Your task to perform on an android device: What's the latest tech news? Image 0: 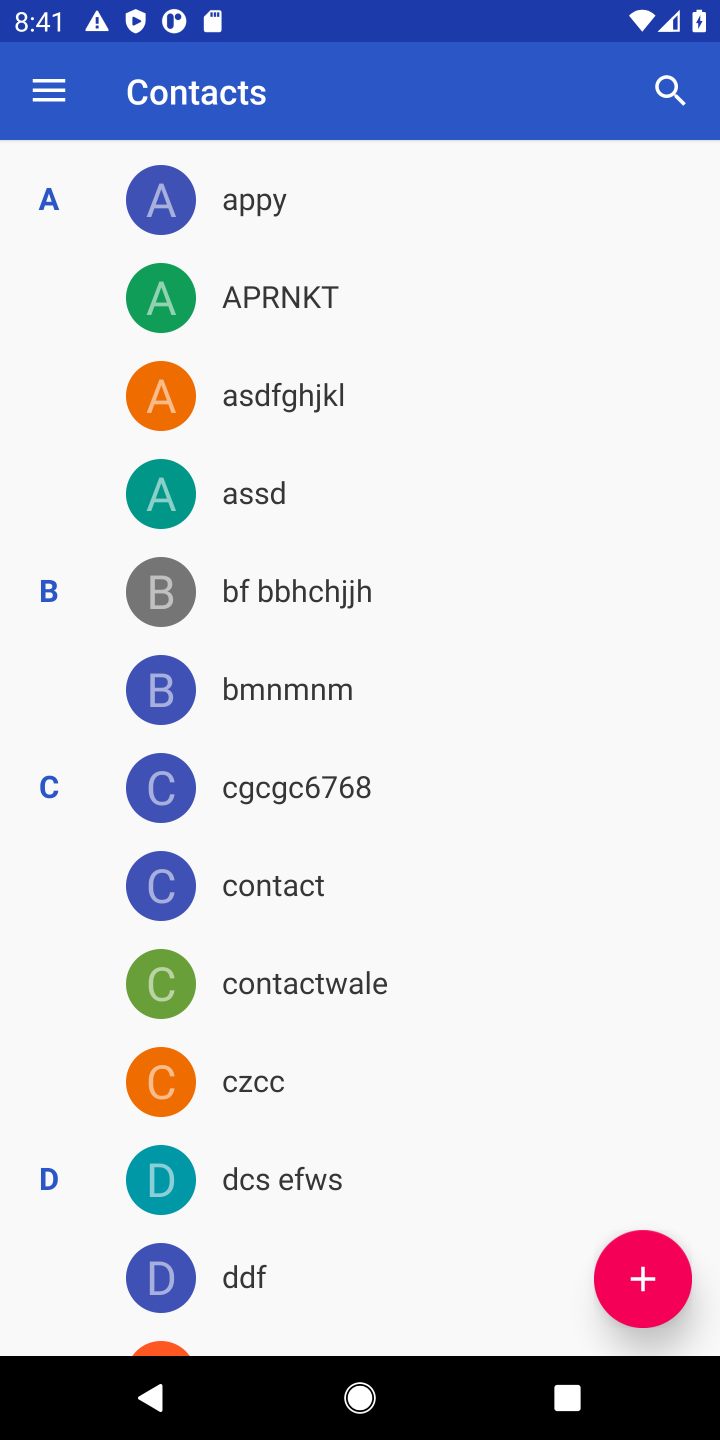
Step 0: press home button
Your task to perform on an android device: What's the latest tech news? Image 1: 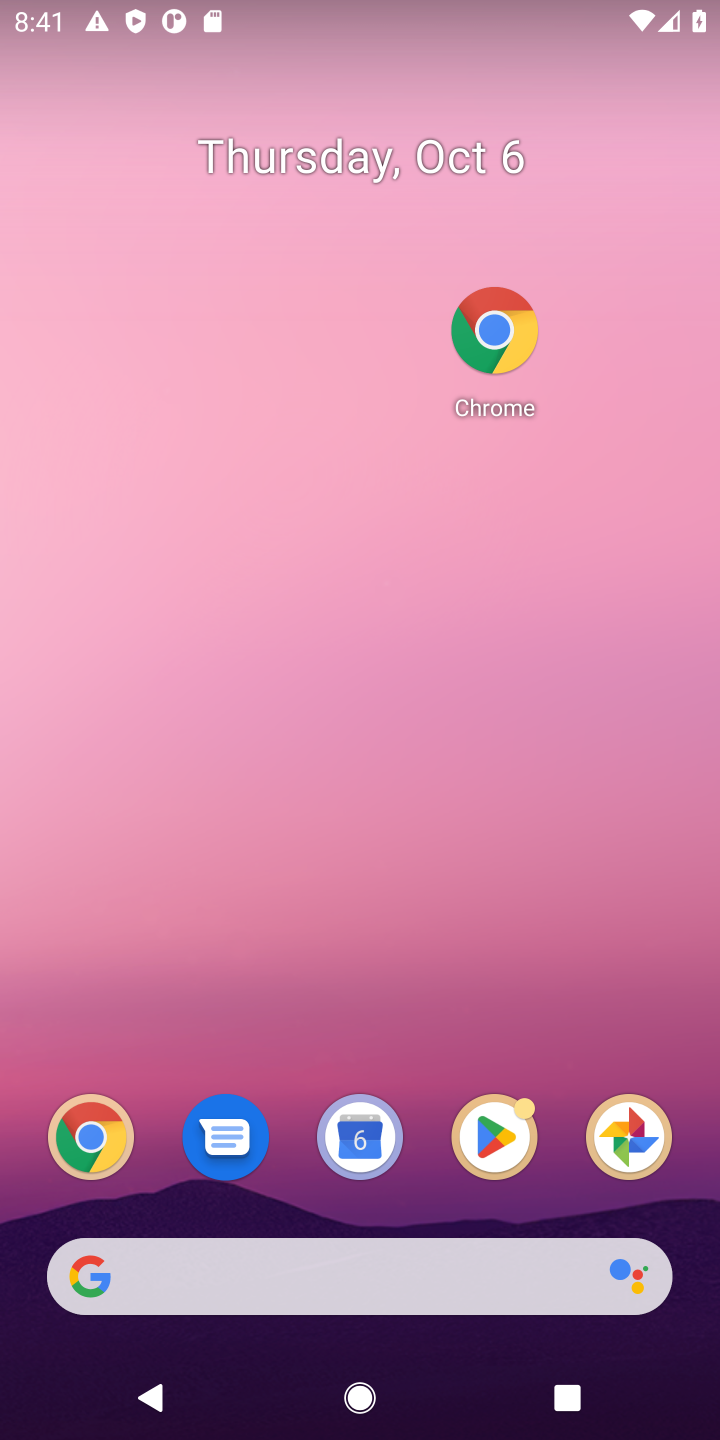
Step 1: click (348, 1285)
Your task to perform on an android device: What's the latest tech news? Image 2: 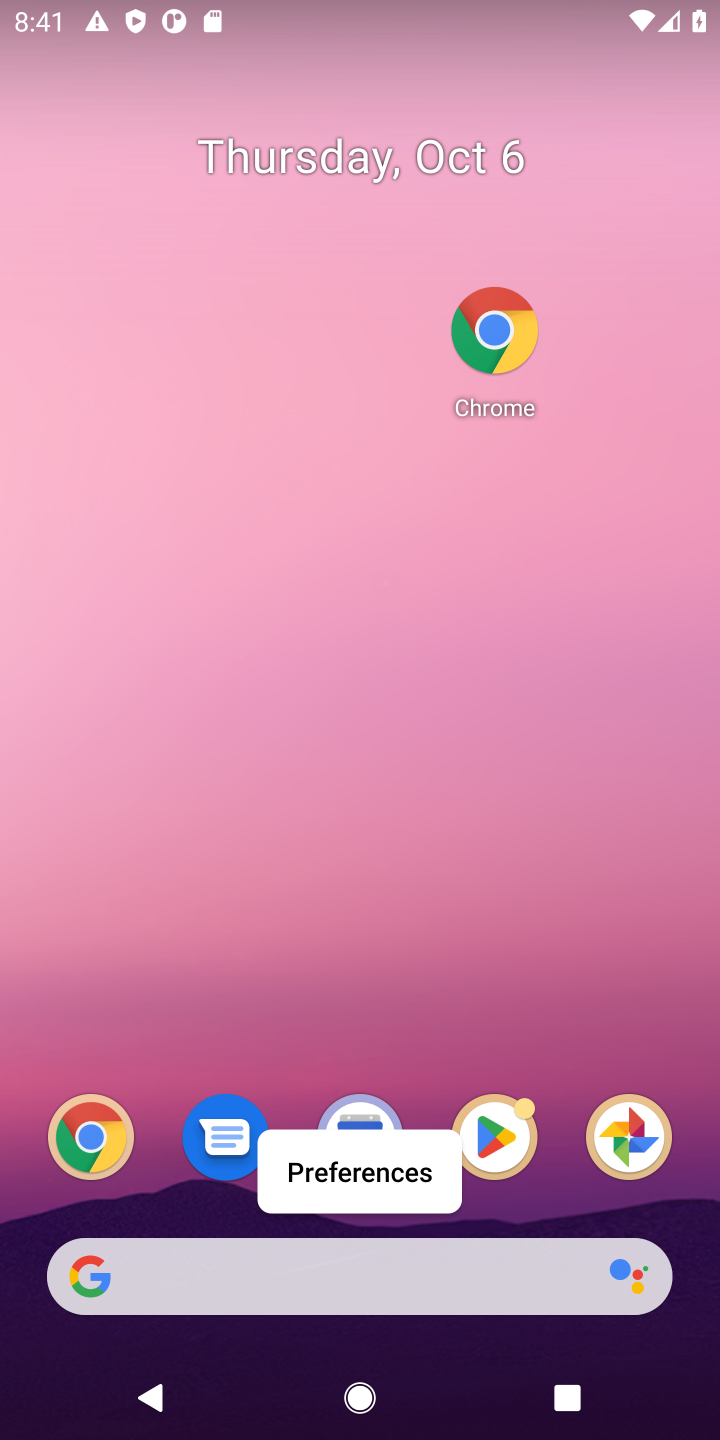
Step 2: click (211, 1282)
Your task to perform on an android device: What's the latest tech news? Image 3: 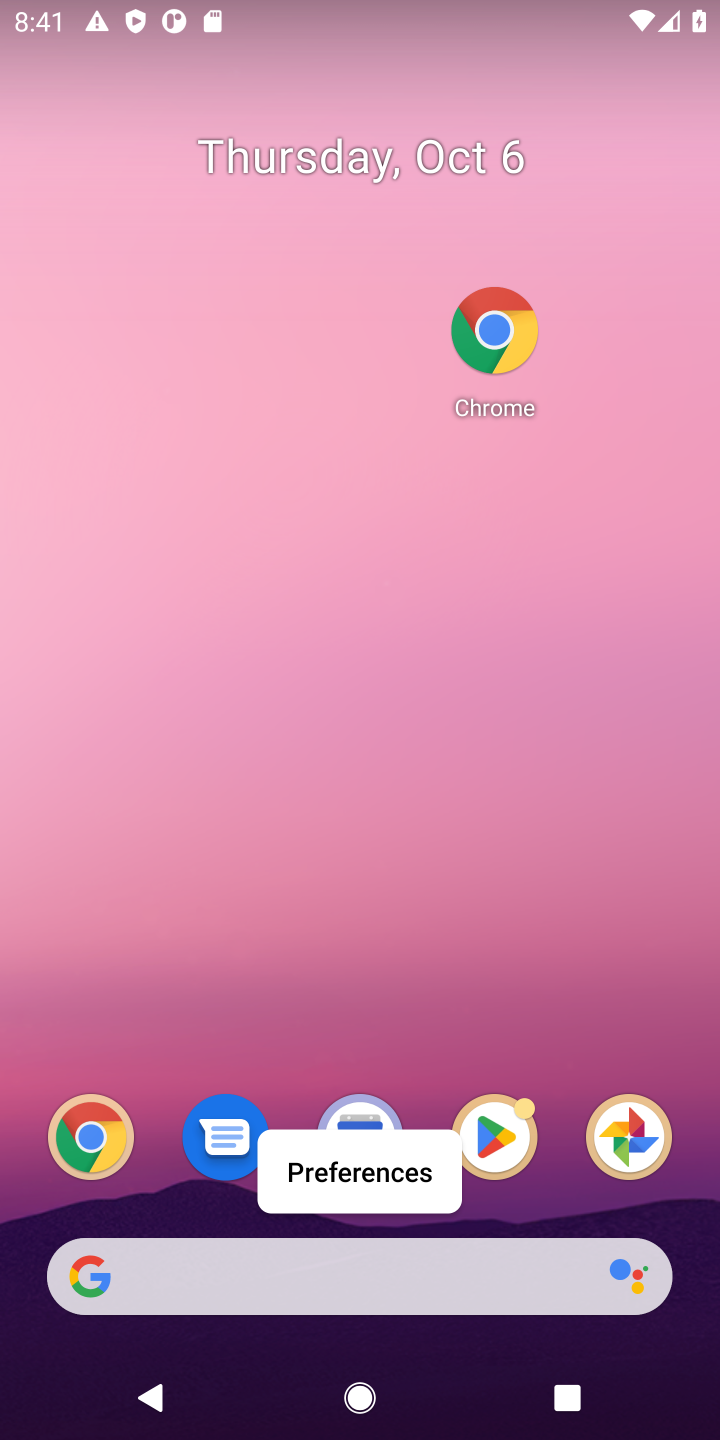
Step 3: click (189, 1282)
Your task to perform on an android device: What's the latest tech news? Image 4: 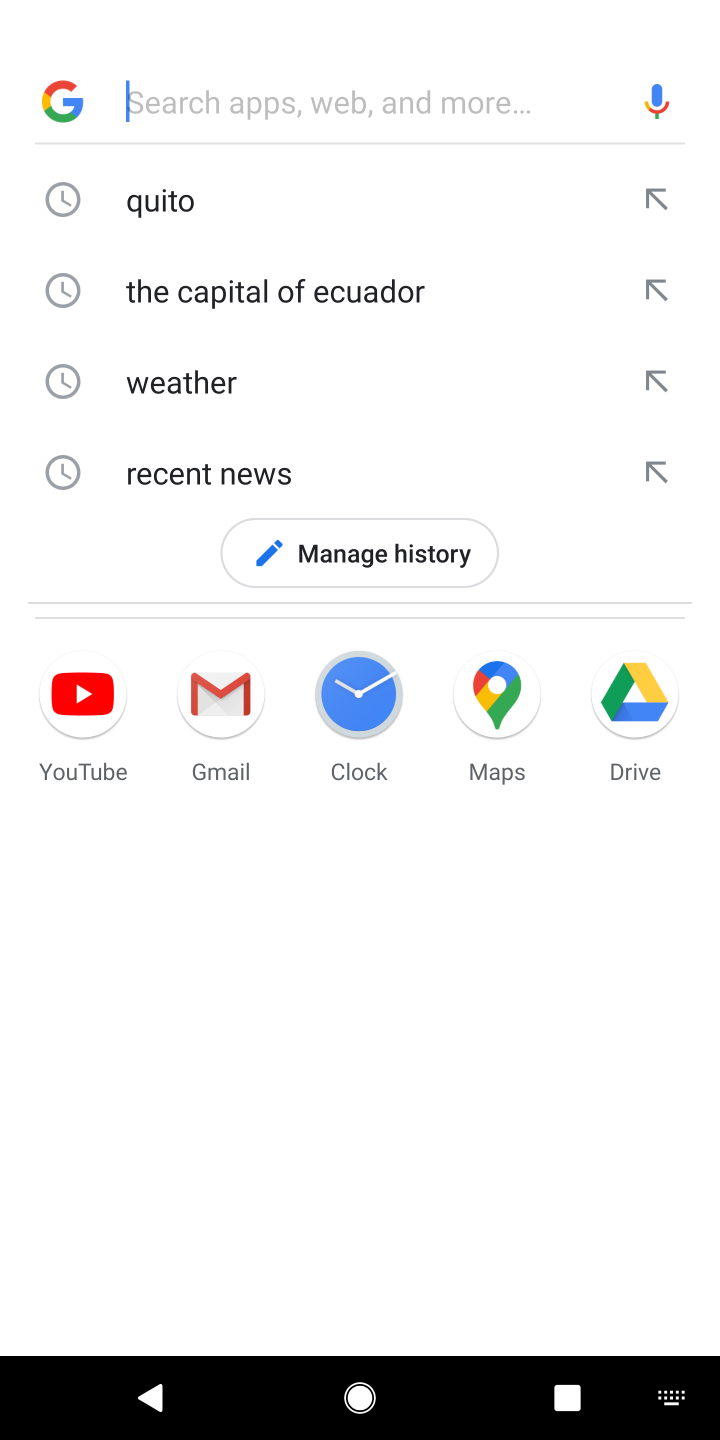
Step 4: type "latest tech news"
Your task to perform on an android device: What's the latest tech news? Image 5: 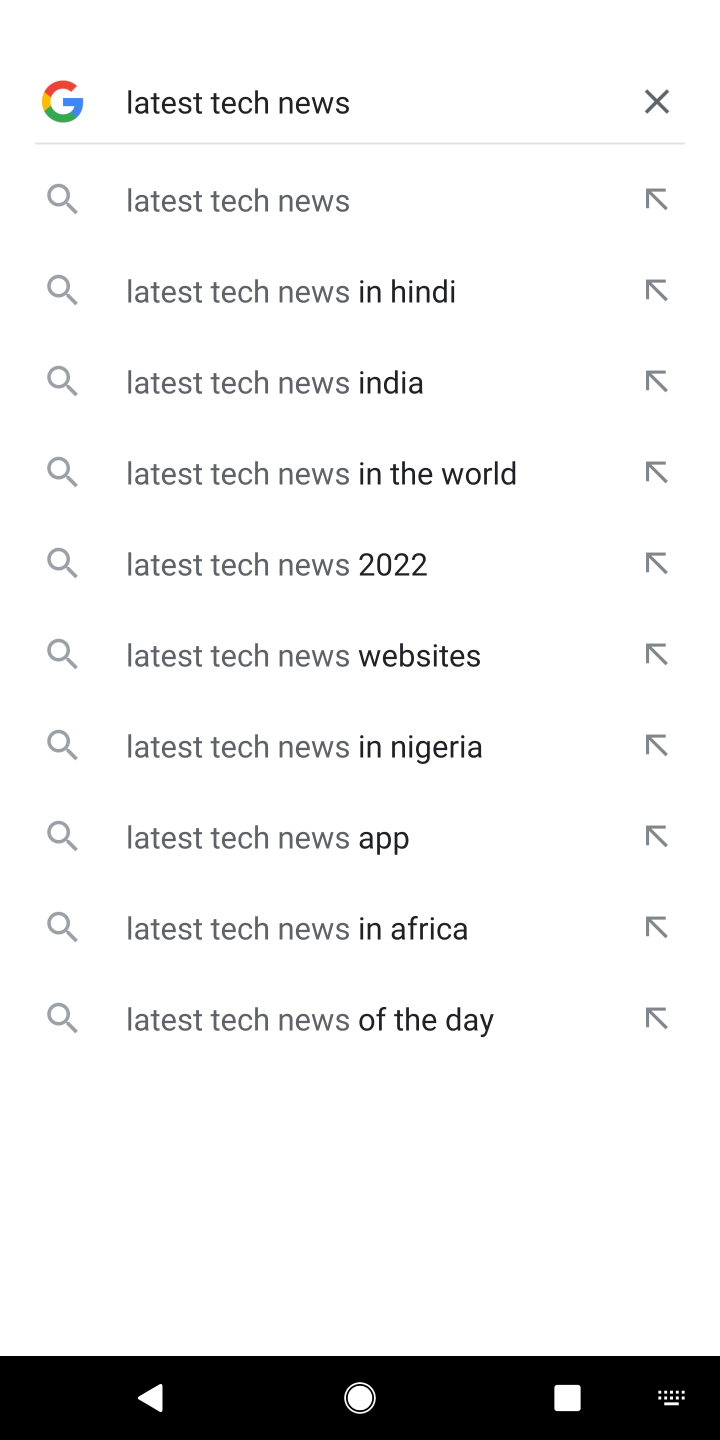
Step 5: click (210, 216)
Your task to perform on an android device: What's the latest tech news? Image 6: 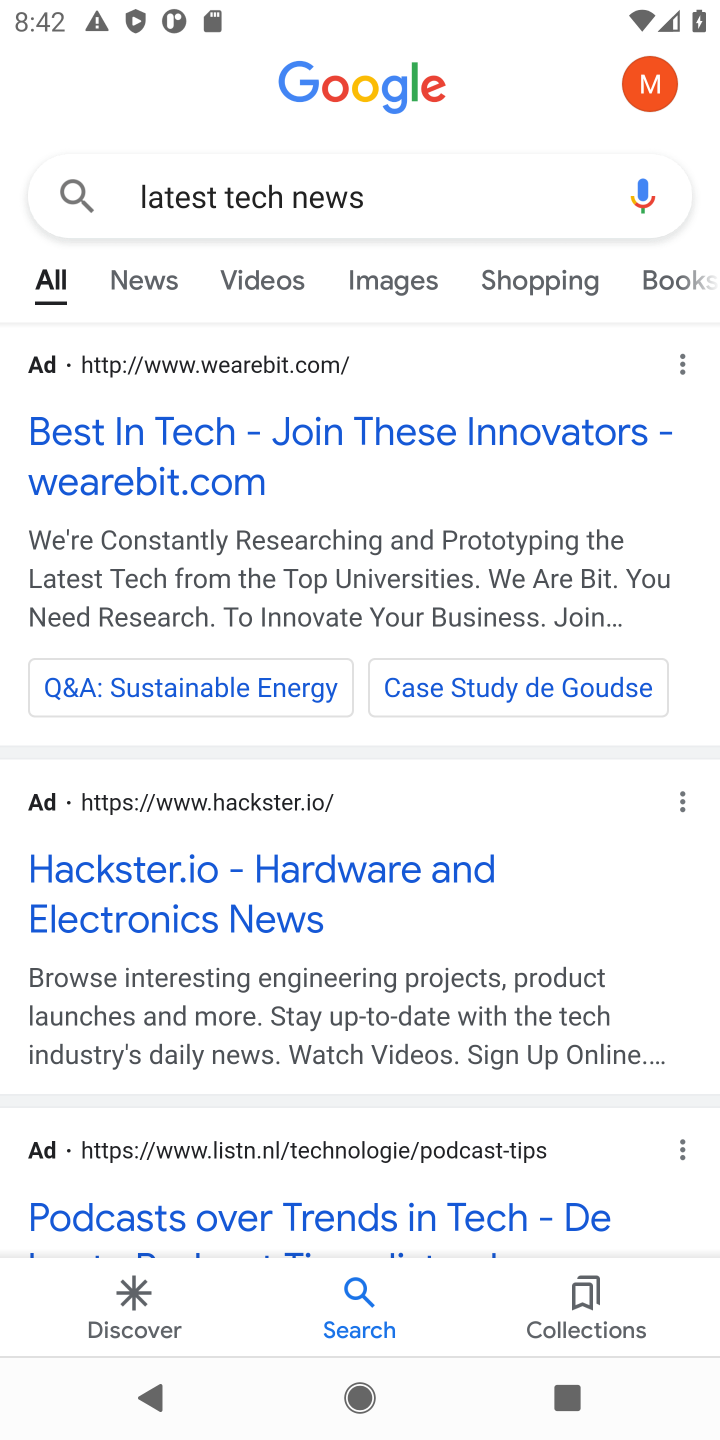
Step 6: drag from (412, 820) to (446, 521)
Your task to perform on an android device: What's the latest tech news? Image 7: 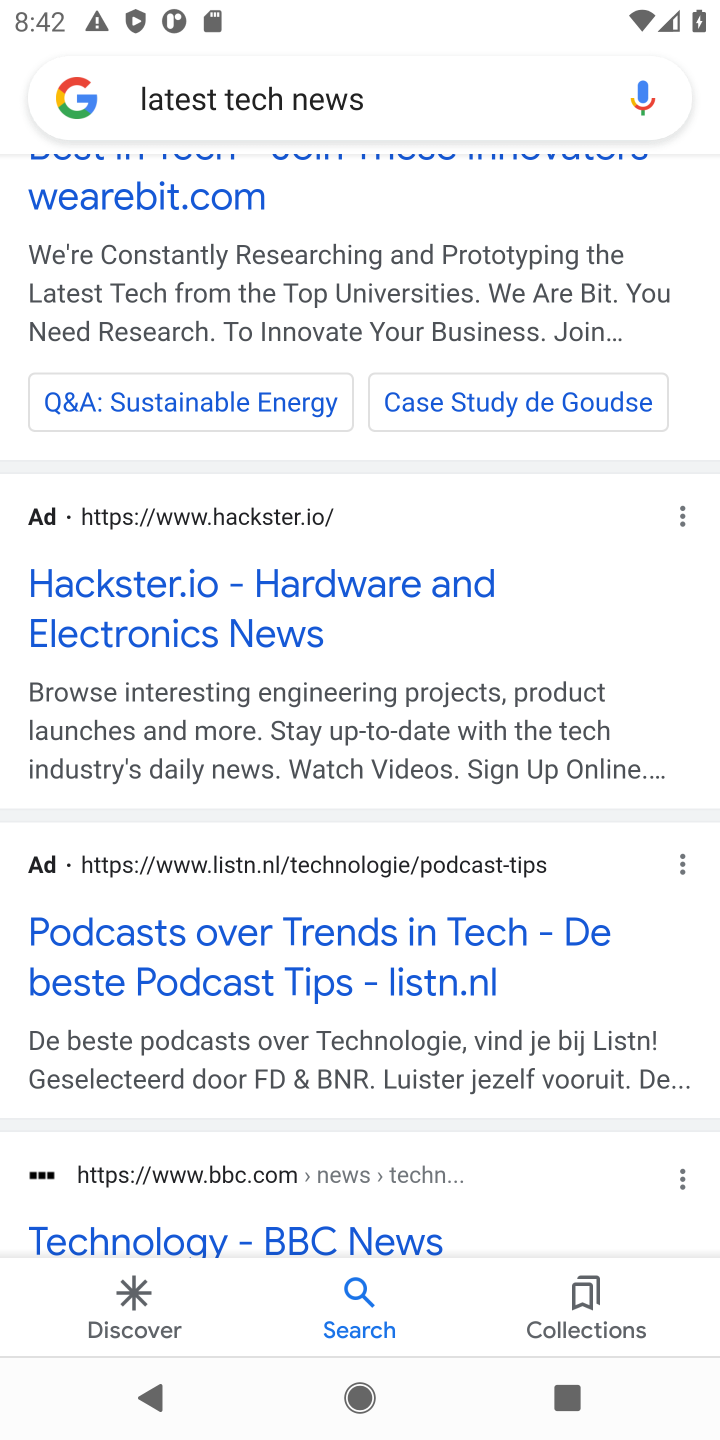
Step 7: click (183, 938)
Your task to perform on an android device: What's the latest tech news? Image 8: 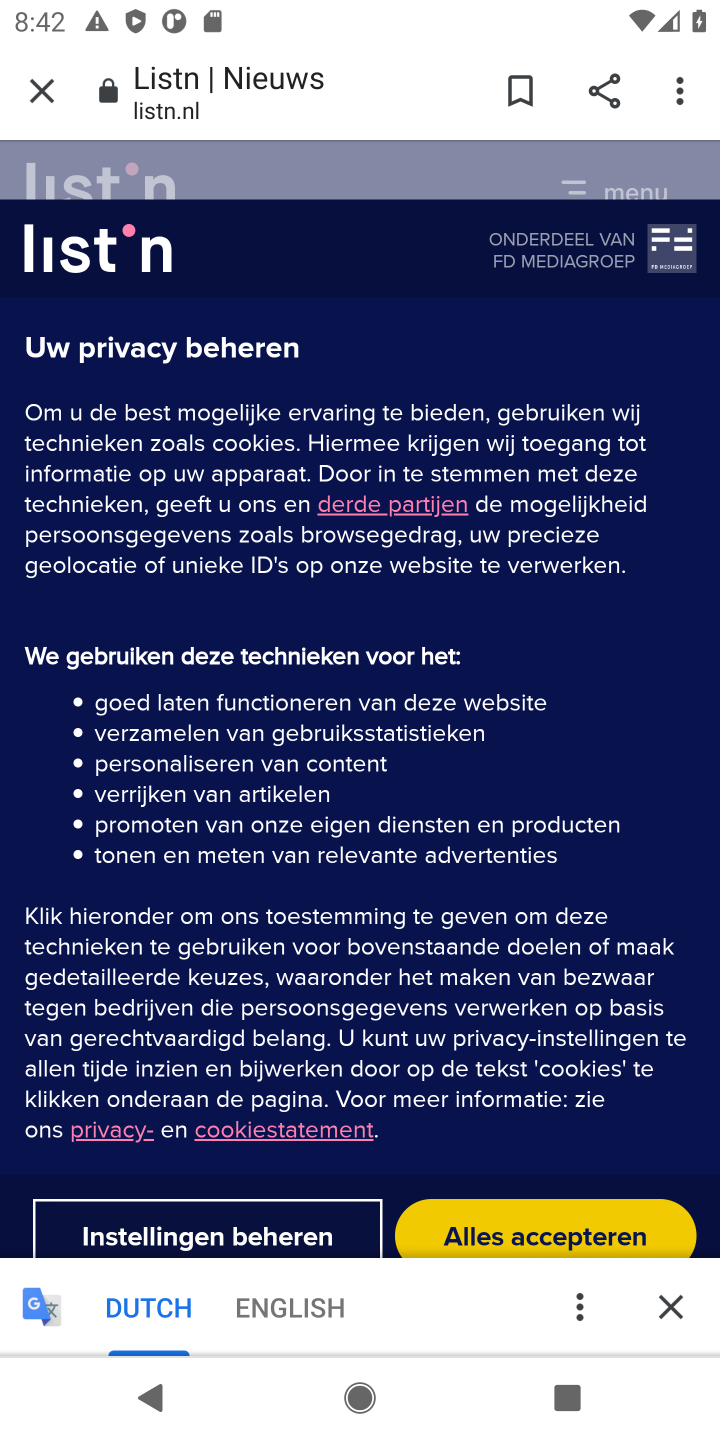
Step 8: task complete